Your task to perform on an android device: turn off notifications in google photos Image 0: 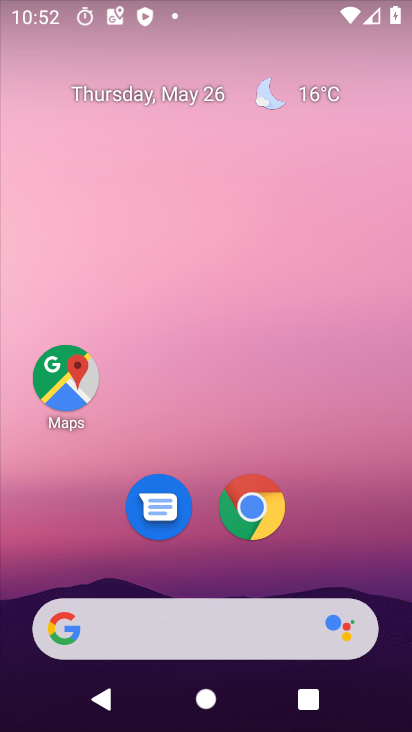
Step 0: drag from (190, 604) to (174, 257)
Your task to perform on an android device: turn off notifications in google photos Image 1: 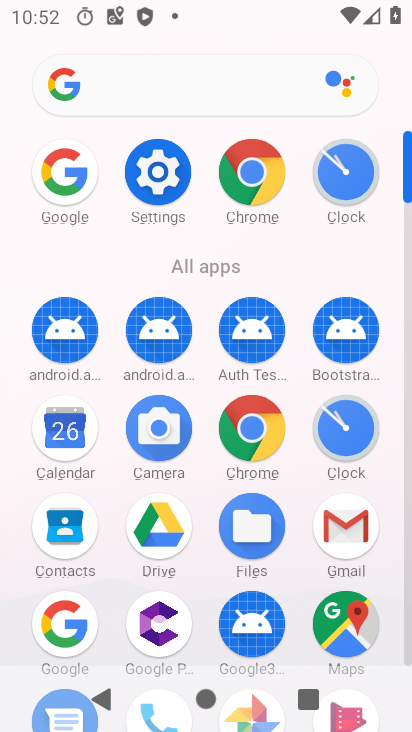
Step 1: drag from (289, 650) to (302, 331)
Your task to perform on an android device: turn off notifications in google photos Image 2: 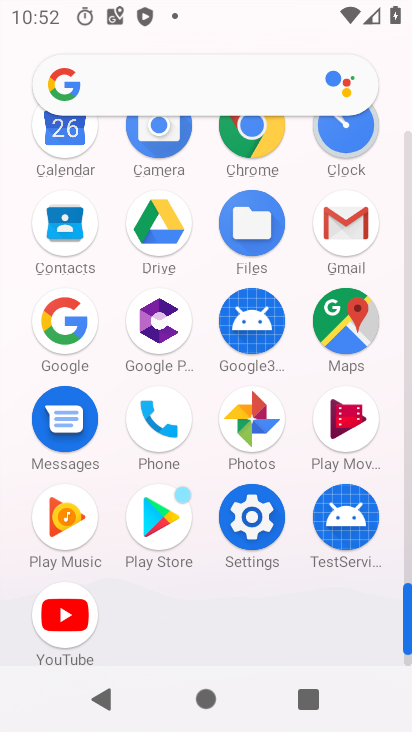
Step 2: click (264, 419)
Your task to perform on an android device: turn off notifications in google photos Image 3: 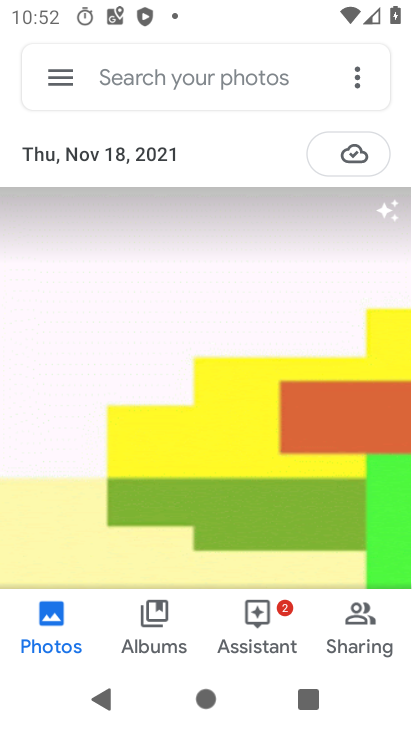
Step 3: click (56, 86)
Your task to perform on an android device: turn off notifications in google photos Image 4: 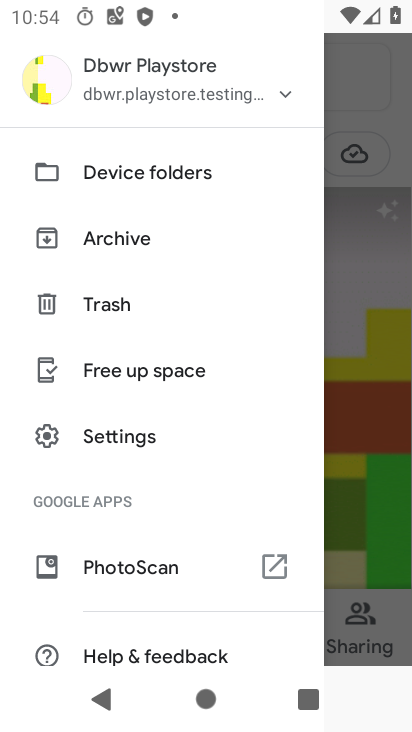
Step 4: click (127, 440)
Your task to perform on an android device: turn off notifications in google photos Image 5: 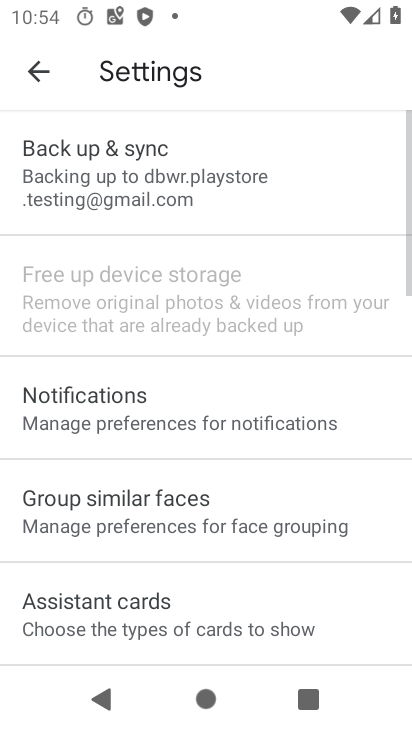
Step 5: click (159, 171)
Your task to perform on an android device: turn off notifications in google photos Image 6: 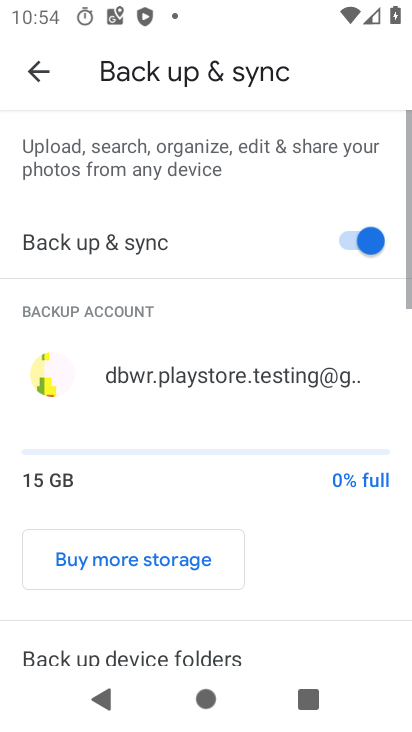
Step 6: click (37, 72)
Your task to perform on an android device: turn off notifications in google photos Image 7: 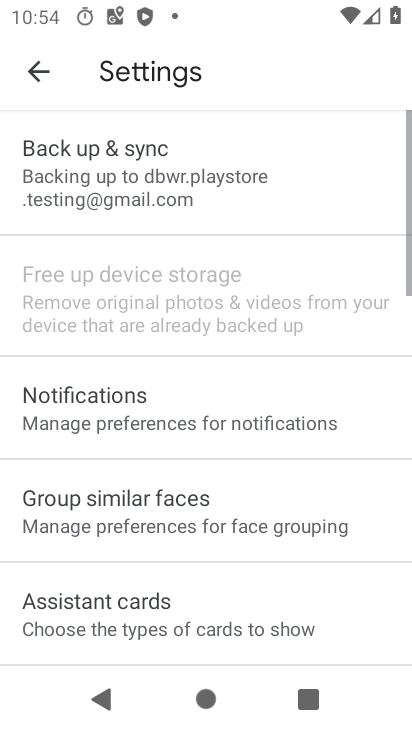
Step 7: click (138, 418)
Your task to perform on an android device: turn off notifications in google photos Image 8: 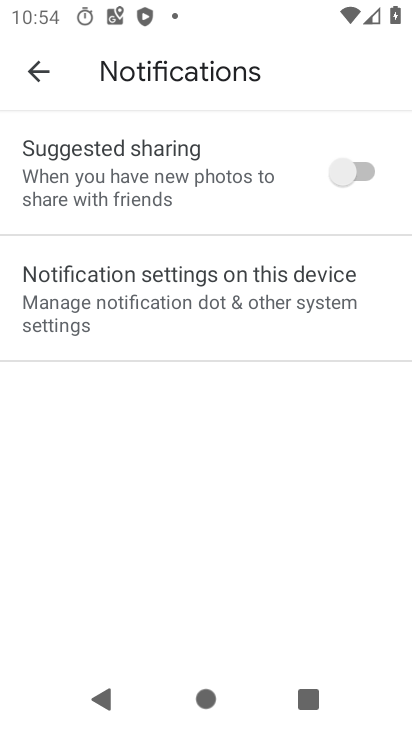
Step 8: click (37, 74)
Your task to perform on an android device: turn off notifications in google photos Image 9: 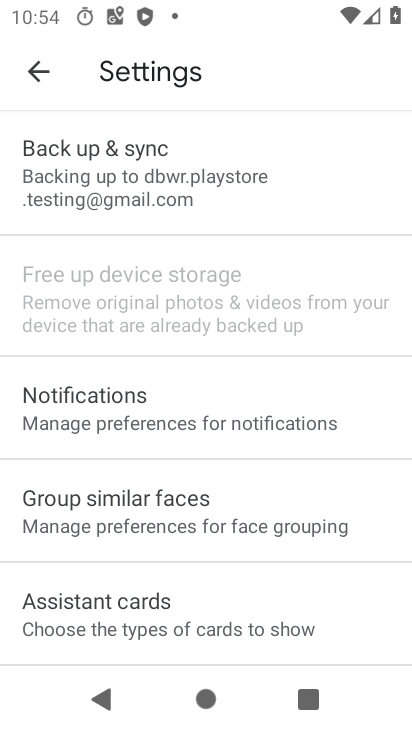
Step 9: click (155, 407)
Your task to perform on an android device: turn off notifications in google photos Image 10: 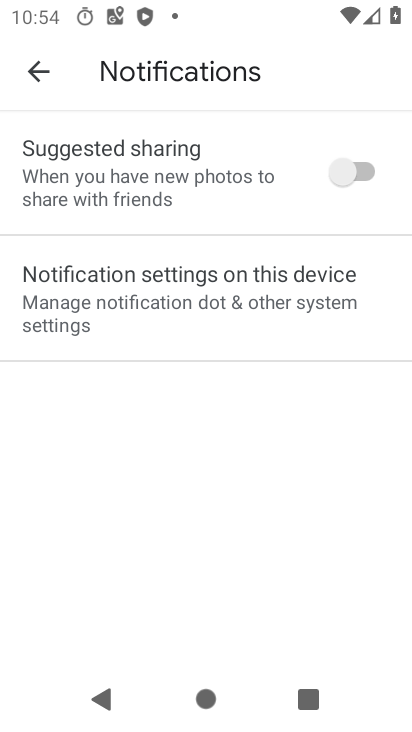
Step 10: click (150, 290)
Your task to perform on an android device: turn off notifications in google photos Image 11: 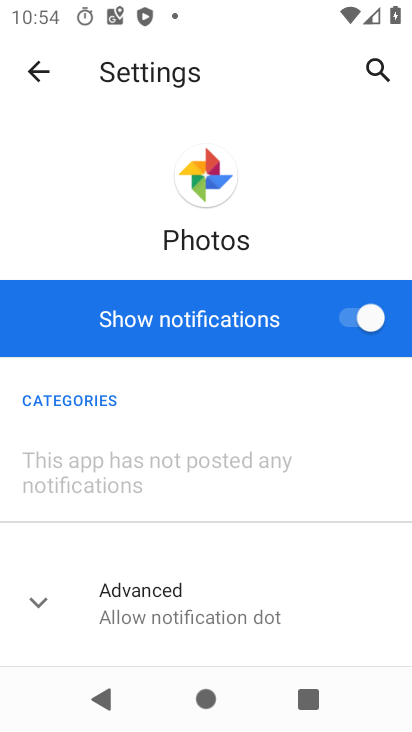
Step 11: click (344, 311)
Your task to perform on an android device: turn off notifications in google photos Image 12: 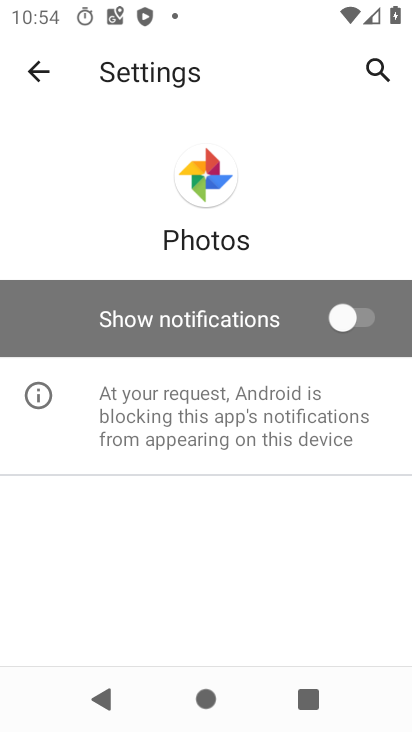
Step 12: task complete